Your task to perform on an android device: Go to CNN.com Image 0: 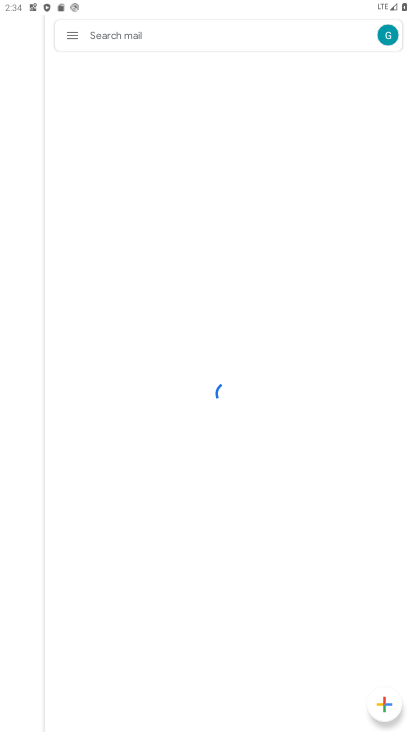
Step 0: press home button
Your task to perform on an android device: Go to CNN.com Image 1: 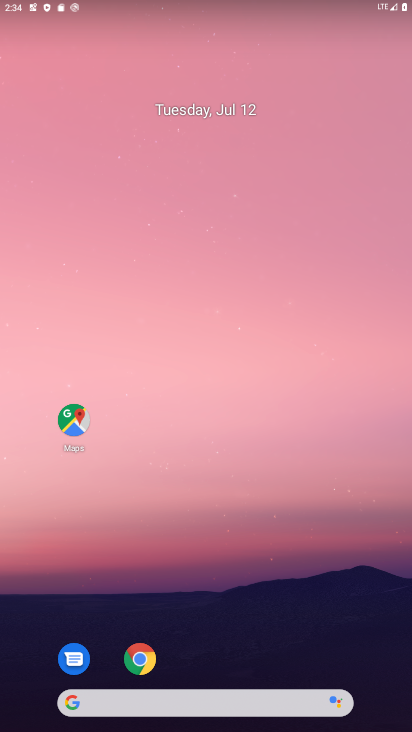
Step 1: click (132, 655)
Your task to perform on an android device: Go to CNN.com Image 2: 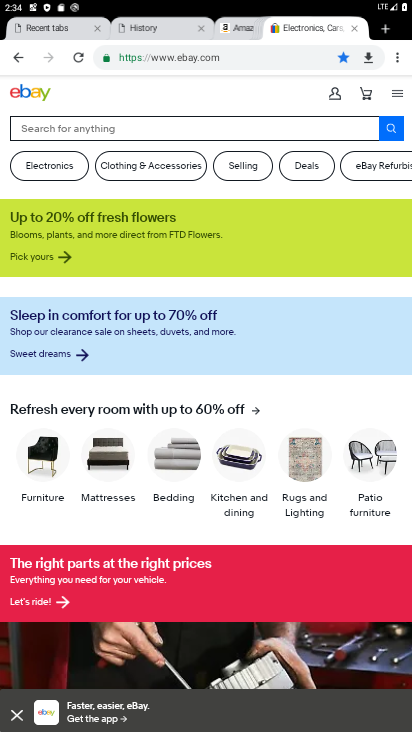
Step 2: click (398, 60)
Your task to perform on an android device: Go to CNN.com Image 3: 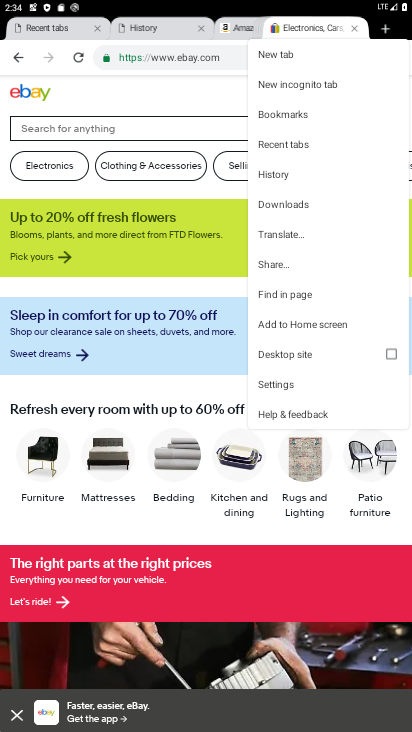
Step 3: click (271, 53)
Your task to perform on an android device: Go to CNN.com Image 4: 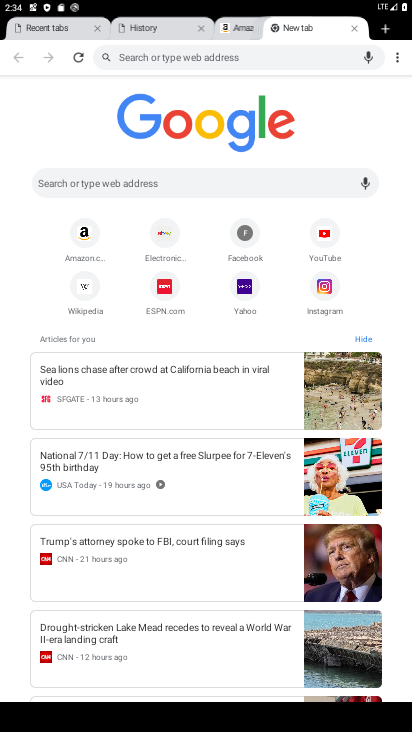
Step 4: click (198, 181)
Your task to perform on an android device: Go to CNN.com Image 5: 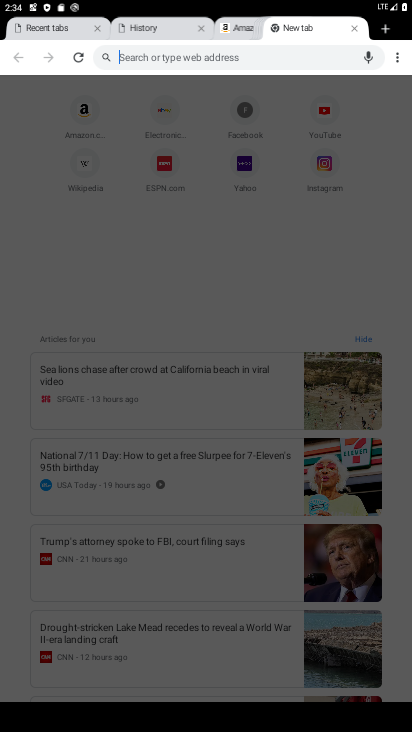
Step 5: type "CNN.com"
Your task to perform on an android device: Go to CNN.com Image 6: 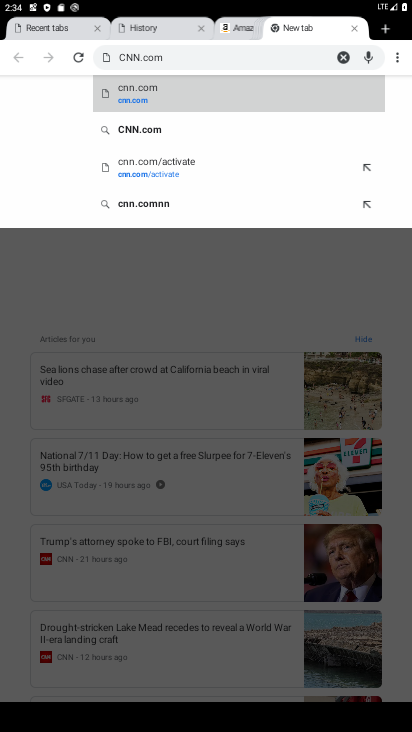
Step 6: click (135, 127)
Your task to perform on an android device: Go to CNN.com Image 7: 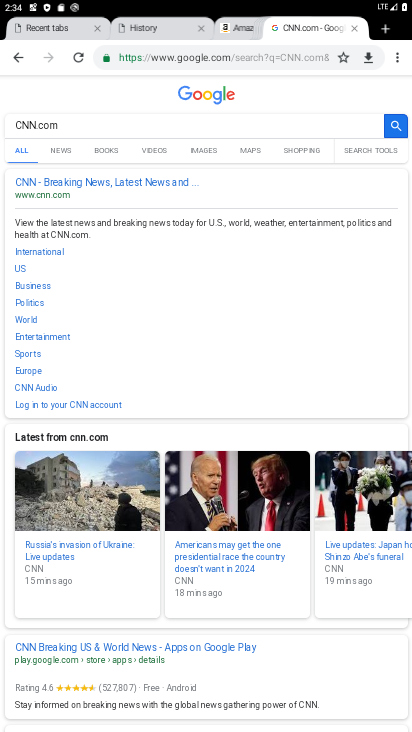
Step 7: click (93, 183)
Your task to perform on an android device: Go to CNN.com Image 8: 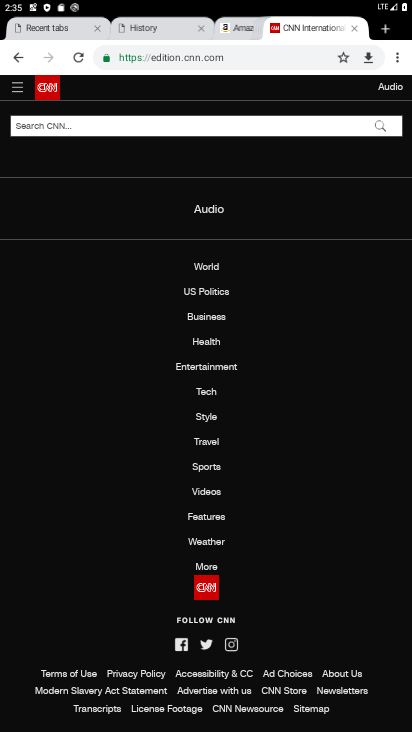
Step 8: task complete